Your task to perform on an android device: turn off notifications settings in the gmail app Image 0: 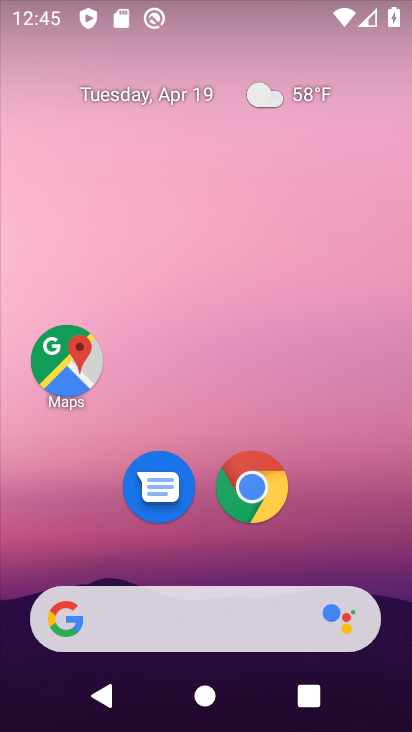
Step 0: drag from (206, 725) to (206, 163)
Your task to perform on an android device: turn off notifications settings in the gmail app Image 1: 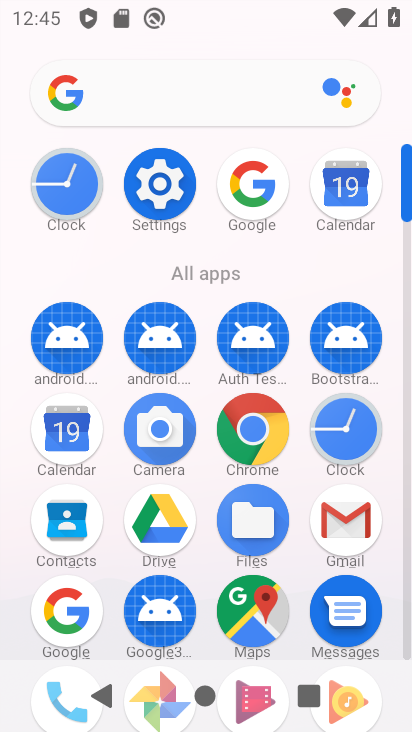
Step 1: click (346, 518)
Your task to perform on an android device: turn off notifications settings in the gmail app Image 2: 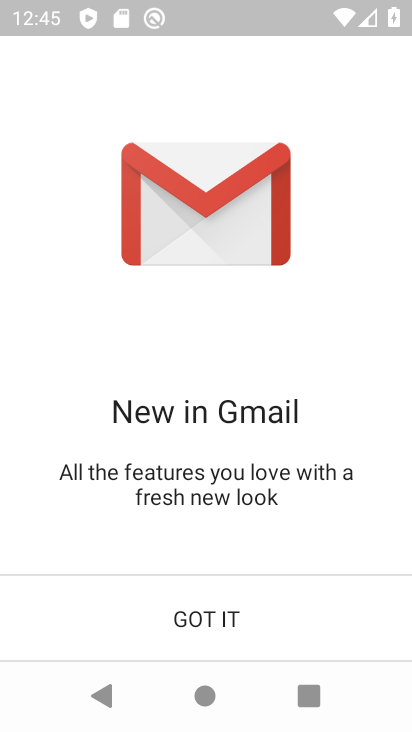
Step 2: click (198, 610)
Your task to perform on an android device: turn off notifications settings in the gmail app Image 3: 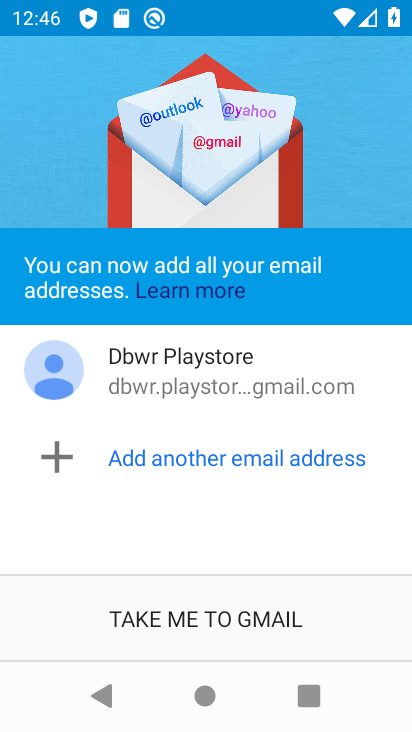
Step 3: click (198, 610)
Your task to perform on an android device: turn off notifications settings in the gmail app Image 4: 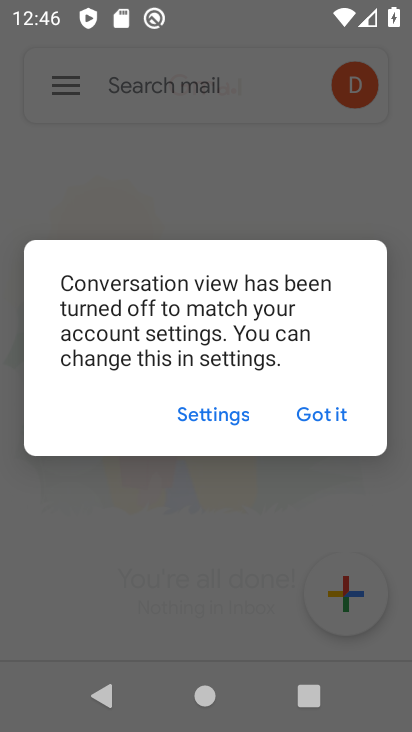
Step 4: click (319, 410)
Your task to perform on an android device: turn off notifications settings in the gmail app Image 5: 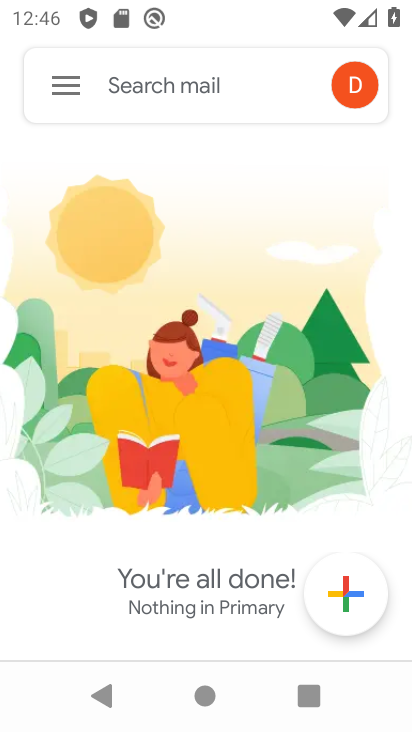
Step 5: click (66, 79)
Your task to perform on an android device: turn off notifications settings in the gmail app Image 6: 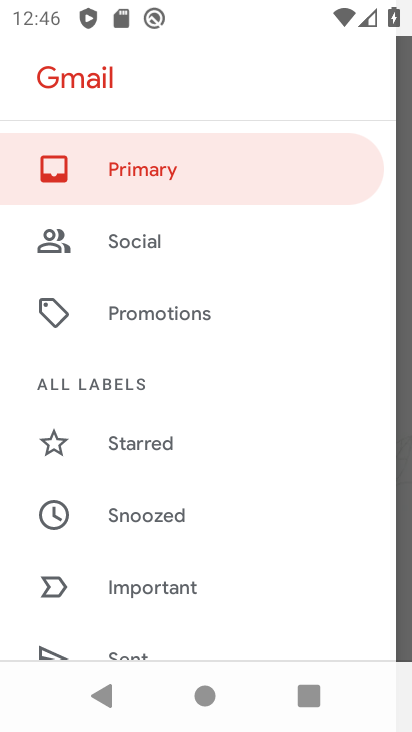
Step 6: drag from (164, 613) to (147, 79)
Your task to perform on an android device: turn off notifications settings in the gmail app Image 7: 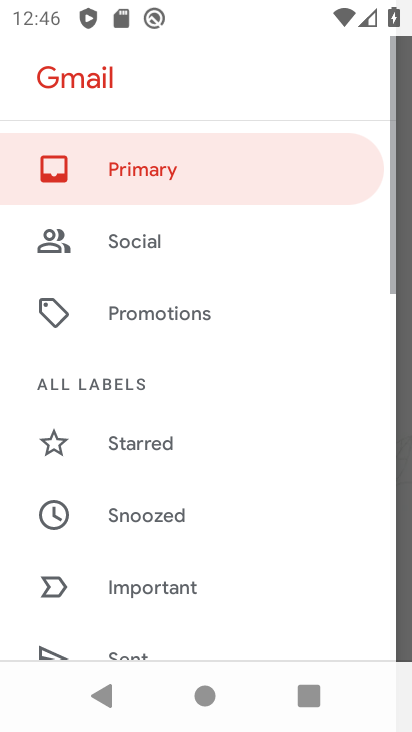
Step 7: drag from (177, 624) to (182, 89)
Your task to perform on an android device: turn off notifications settings in the gmail app Image 8: 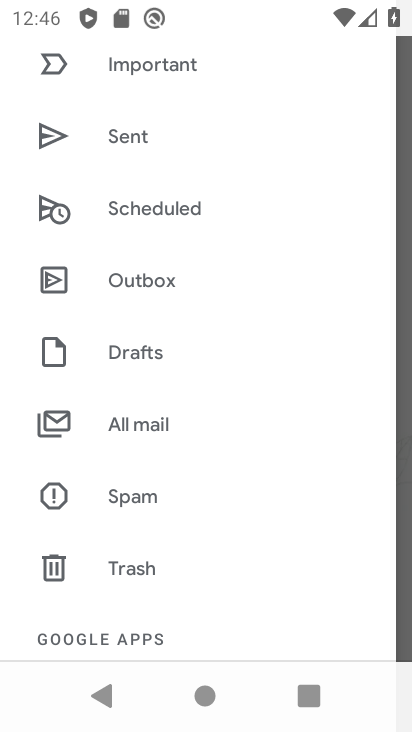
Step 8: drag from (154, 607) to (155, 110)
Your task to perform on an android device: turn off notifications settings in the gmail app Image 9: 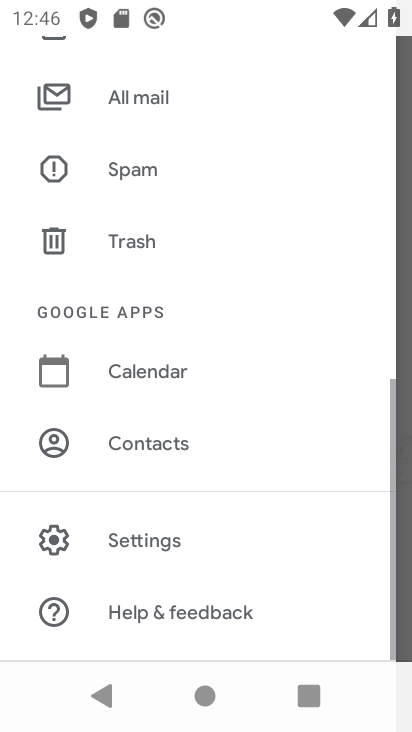
Step 9: click (136, 540)
Your task to perform on an android device: turn off notifications settings in the gmail app Image 10: 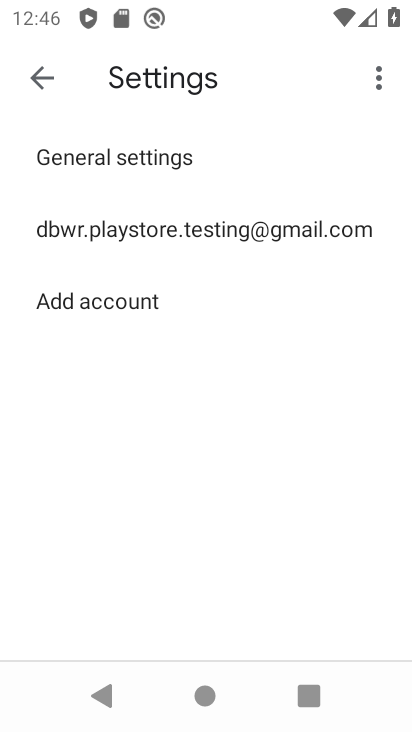
Step 10: click (160, 227)
Your task to perform on an android device: turn off notifications settings in the gmail app Image 11: 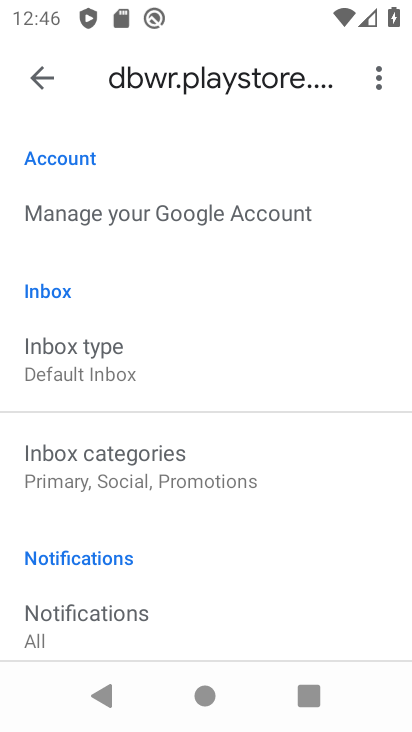
Step 11: drag from (190, 617) to (192, 184)
Your task to perform on an android device: turn off notifications settings in the gmail app Image 12: 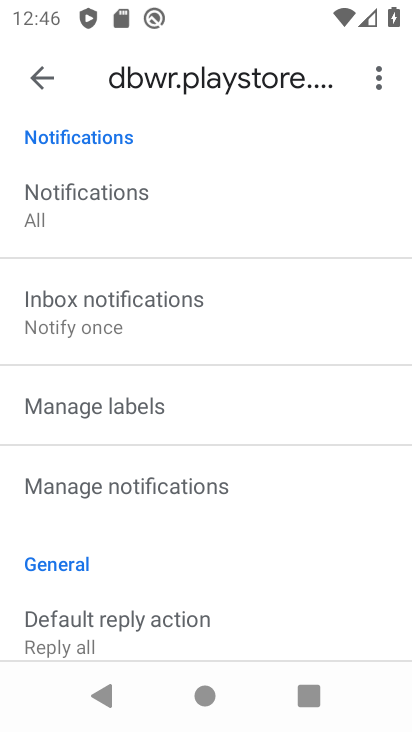
Step 12: click (61, 196)
Your task to perform on an android device: turn off notifications settings in the gmail app Image 13: 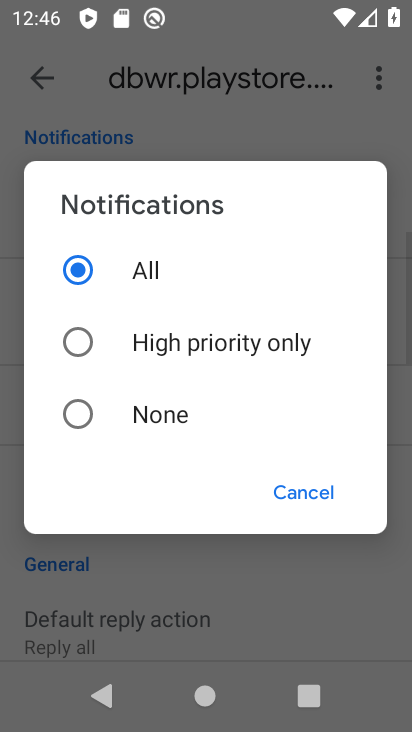
Step 13: click (66, 411)
Your task to perform on an android device: turn off notifications settings in the gmail app Image 14: 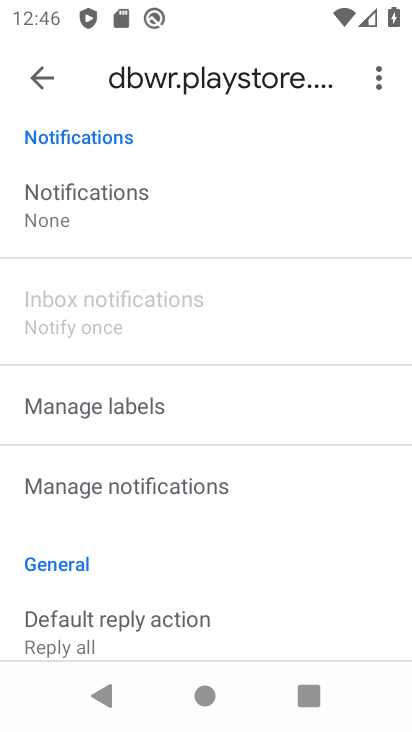
Step 14: task complete